Your task to perform on an android device: toggle pop-ups in chrome Image 0: 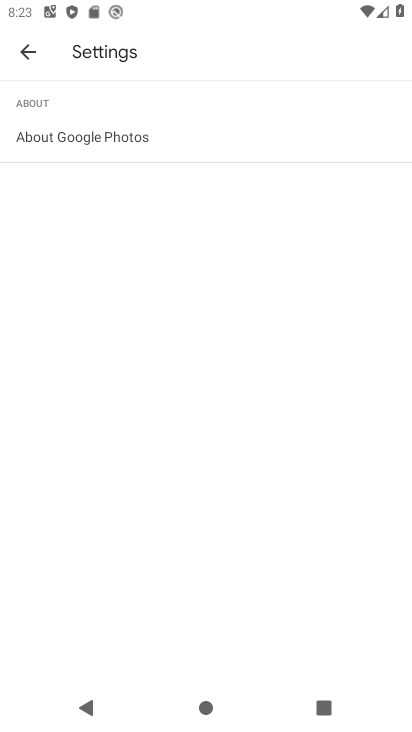
Step 0: press home button
Your task to perform on an android device: toggle pop-ups in chrome Image 1: 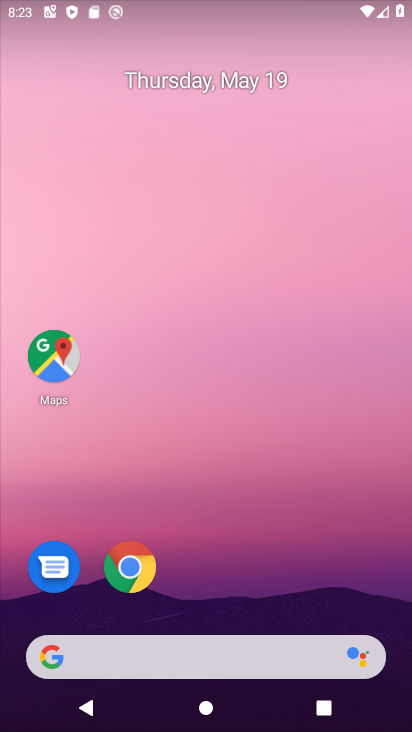
Step 1: click (140, 585)
Your task to perform on an android device: toggle pop-ups in chrome Image 2: 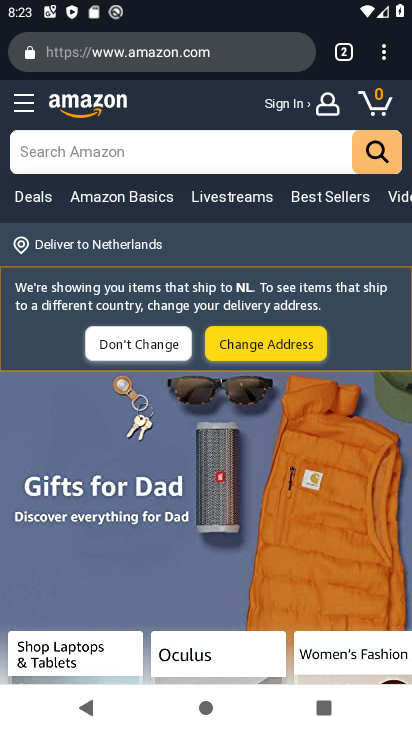
Step 2: click (391, 57)
Your task to perform on an android device: toggle pop-ups in chrome Image 3: 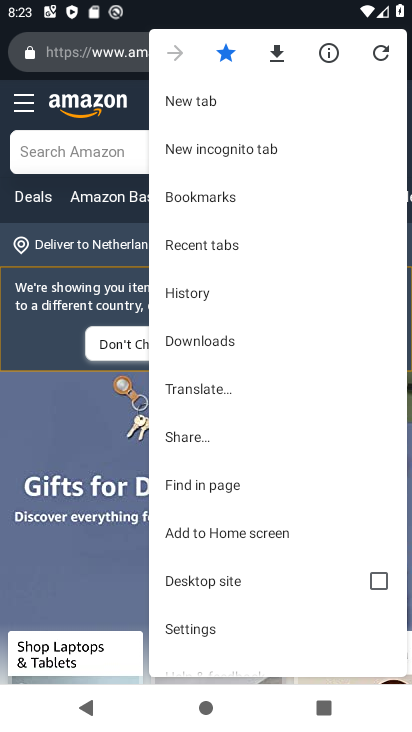
Step 3: click (202, 630)
Your task to perform on an android device: toggle pop-ups in chrome Image 4: 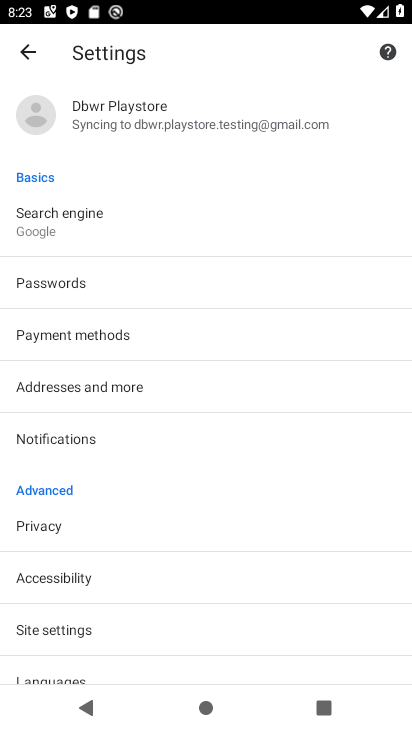
Step 4: click (83, 624)
Your task to perform on an android device: toggle pop-ups in chrome Image 5: 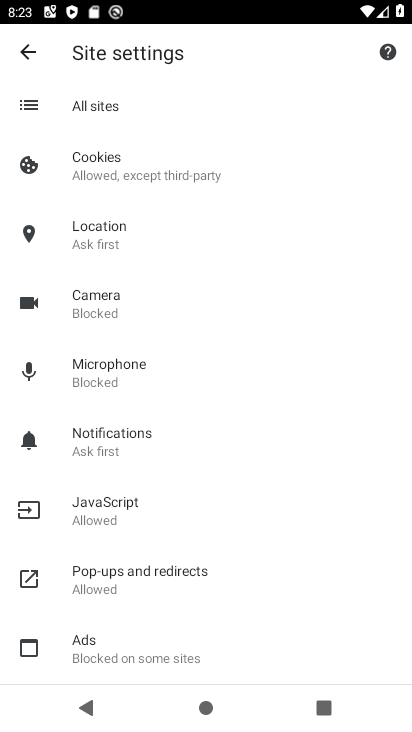
Step 5: click (158, 586)
Your task to perform on an android device: toggle pop-ups in chrome Image 6: 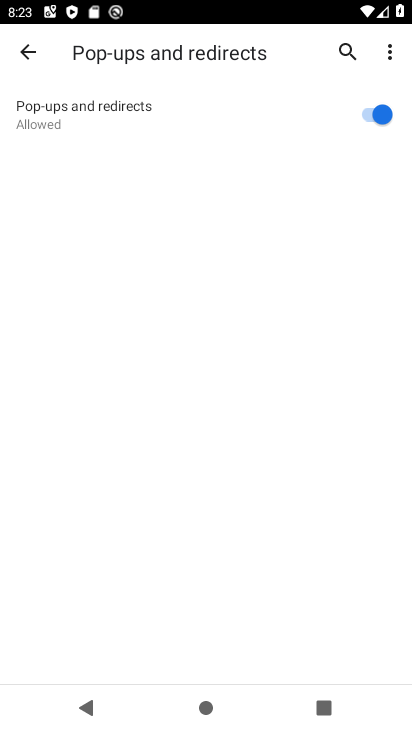
Step 6: click (350, 111)
Your task to perform on an android device: toggle pop-ups in chrome Image 7: 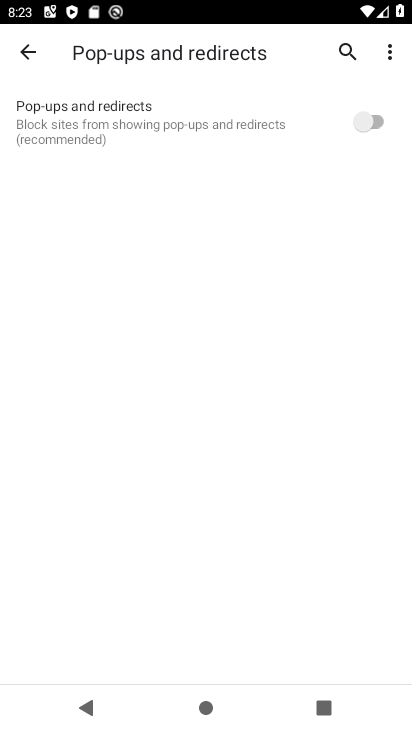
Step 7: task complete